Your task to perform on an android device: Turn off the flashlight Image 0: 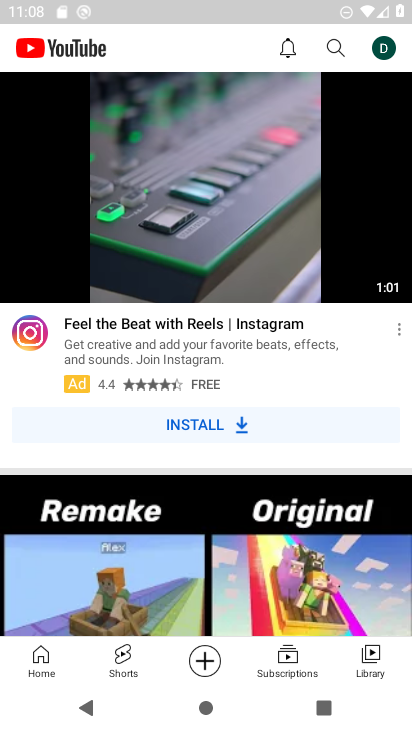
Step 0: press home button
Your task to perform on an android device: Turn off the flashlight Image 1: 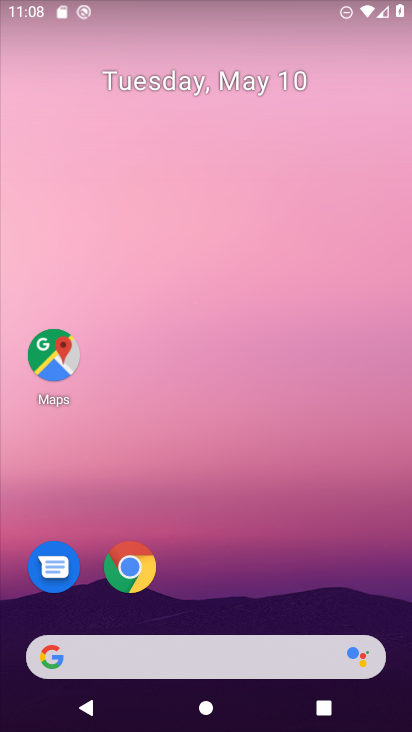
Step 1: drag from (233, 597) to (232, 121)
Your task to perform on an android device: Turn off the flashlight Image 2: 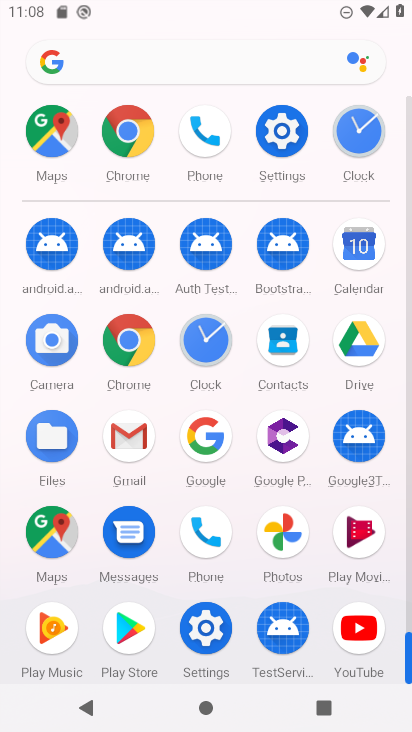
Step 2: click (279, 132)
Your task to perform on an android device: Turn off the flashlight Image 3: 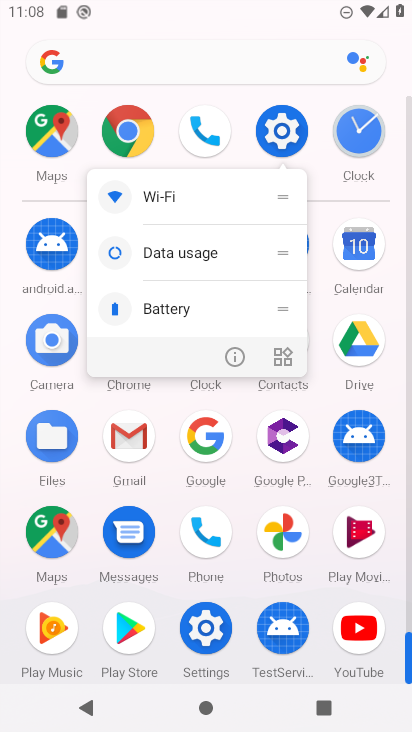
Step 3: click (276, 150)
Your task to perform on an android device: Turn off the flashlight Image 4: 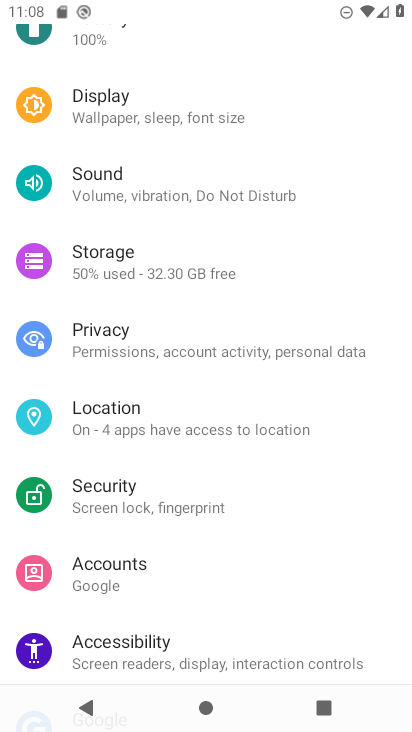
Step 4: drag from (279, 254) to (230, 497)
Your task to perform on an android device: Turn off the flashlight Image 5: 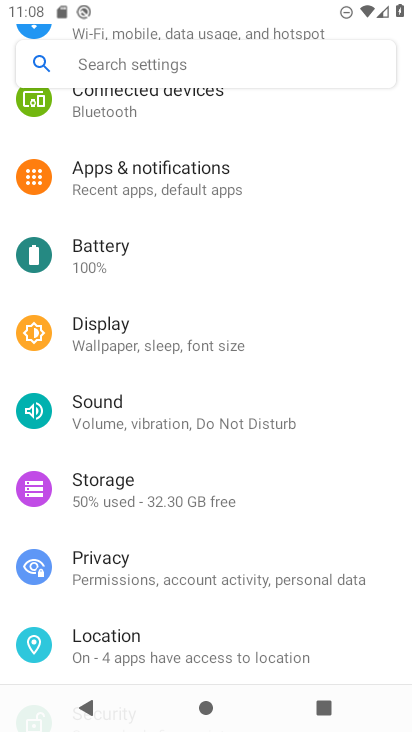
Step 5: drag from (288, 288) to (263, 421)
Your task to perform on an android device: Turn off the flashlight Image 6: 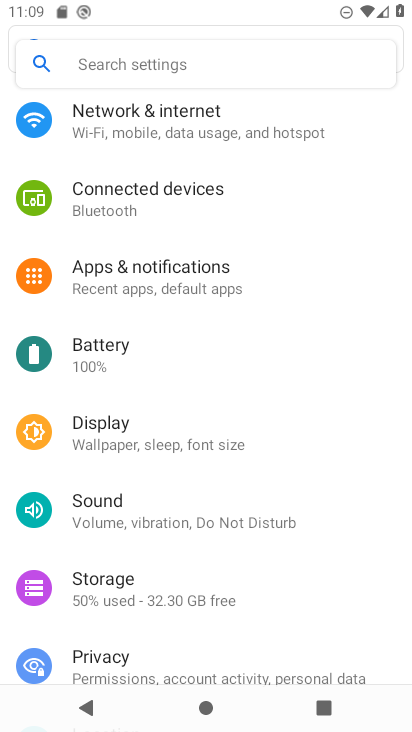
Step 6: click (204, 53)
Your task to perform on an android device: Turn off the flashlight Image 7: 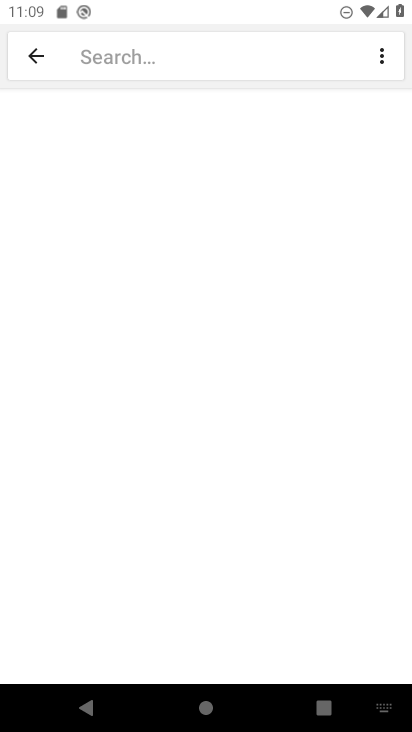
Step 7: type "flashlight"
Your task to perform on an android device: Turn off the flashlight Image 8: 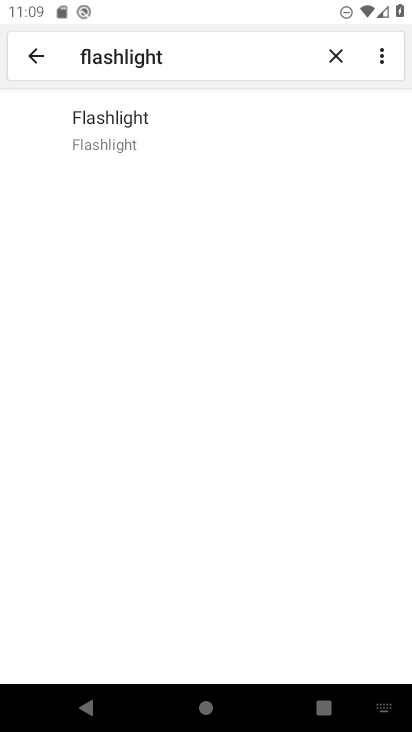
Step 8: click (150, 129)
Your task to perform on an android device: Turn off the flashlight Image 9: 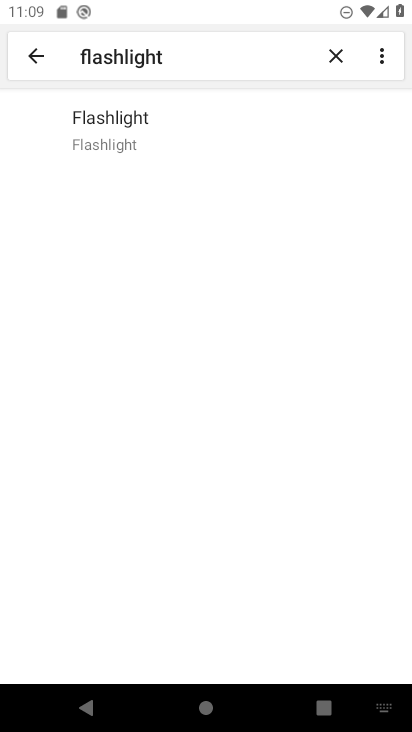
Step 9: task complete